Your task to perform on an android device: Open settings Image 0: 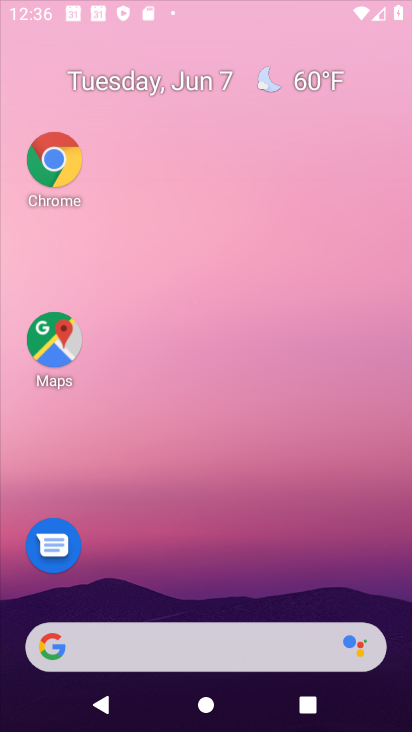
Step 0: click (302, 86)
Your task to perform on an android device: Open settings Image 1: 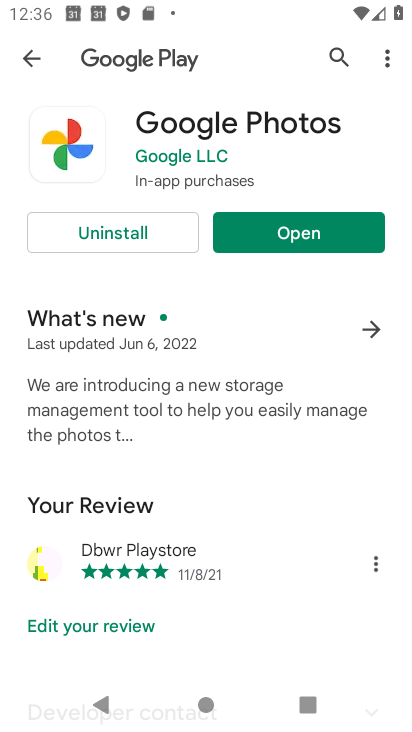
Step 1: press home button
Your task to perform on an android device: Open settings Image 2: 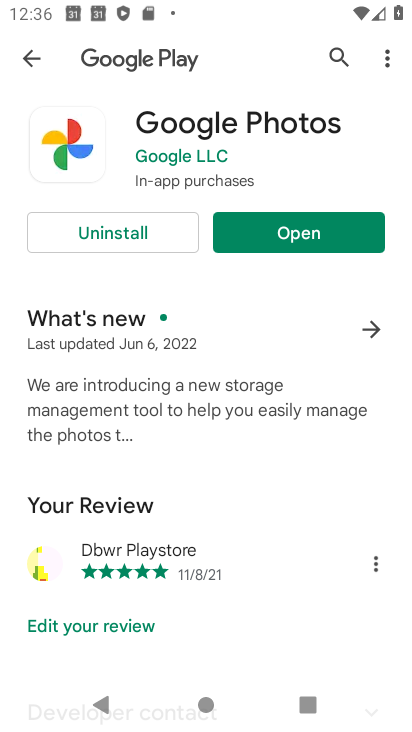
Step 2: drag from (142, 608) to (252, 0)
Your task to perform on an android device: Open settings Image 3: 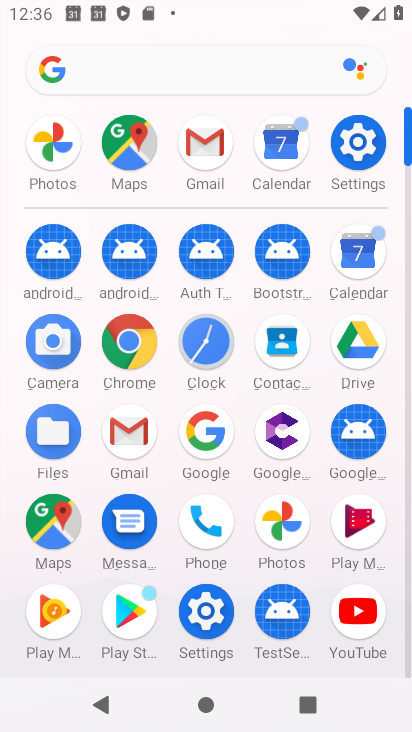
Step 3: click (367, 140)
Your task to perform on an android device: Open settings Image 4: 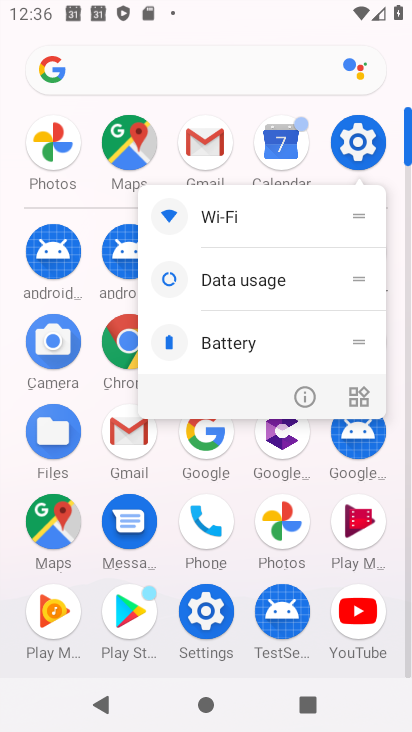
Step 4: click (302, 401)
Your task to perform on an android device: Open settings Image 5: 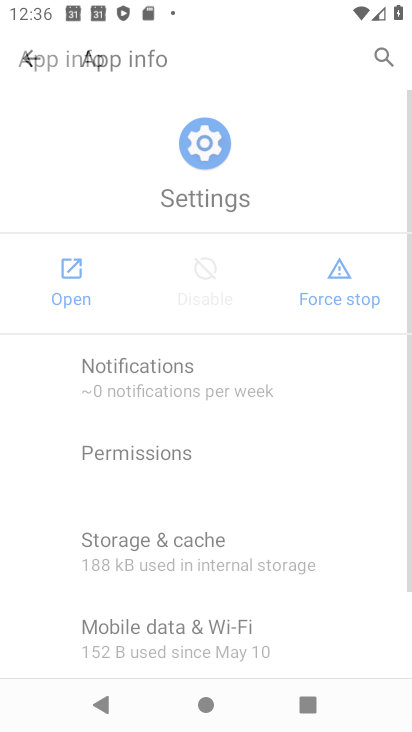
Step 5: drag from (194, 467) to (240, 142)
Your task to perform on an android device: Open settings Image 6: 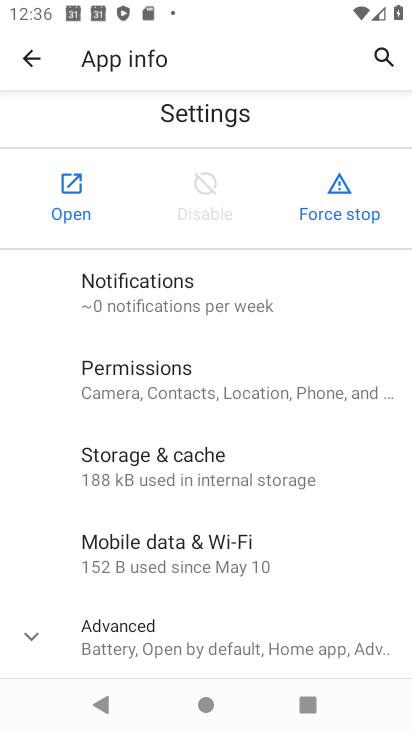
Step 6: click (77, 203)
Your task to perform on an android device: Open settings Image 7: 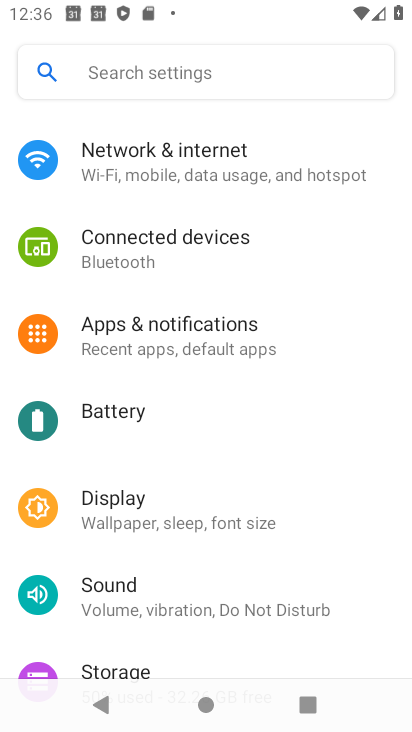
Step 7: task complete